Your task to perform on an android device: Go to Amazon Image 0: 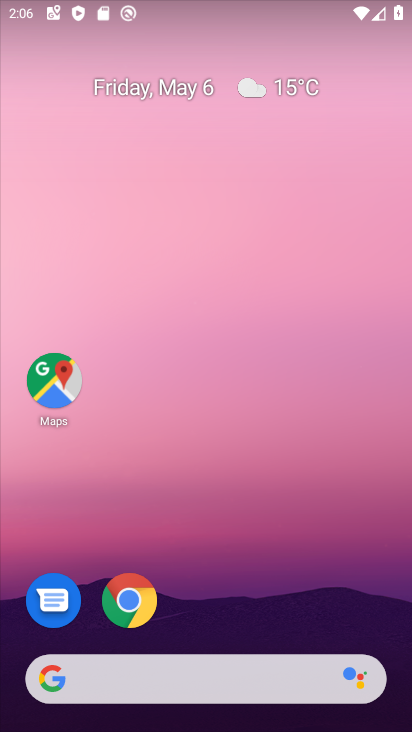
Step 0: drag from (353, 618) to (208, 27)
Your task to perform on an android device: Go to Amazon Image 1: 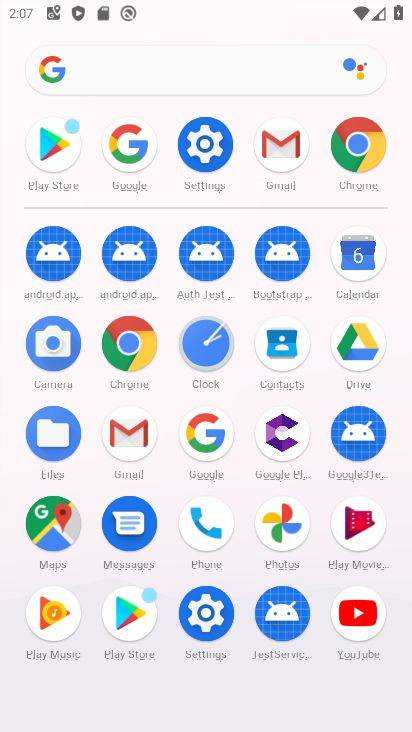
Step 1: click (119, 354)
Your task to perform on an android device: Go to Amazon Image 2: 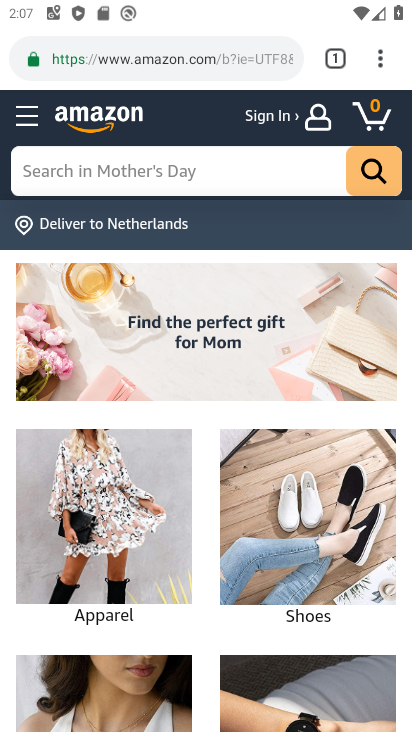
Step 2: task complete